Your task to perform on an android device: Open calendar and show me the third week of next month Image 0: 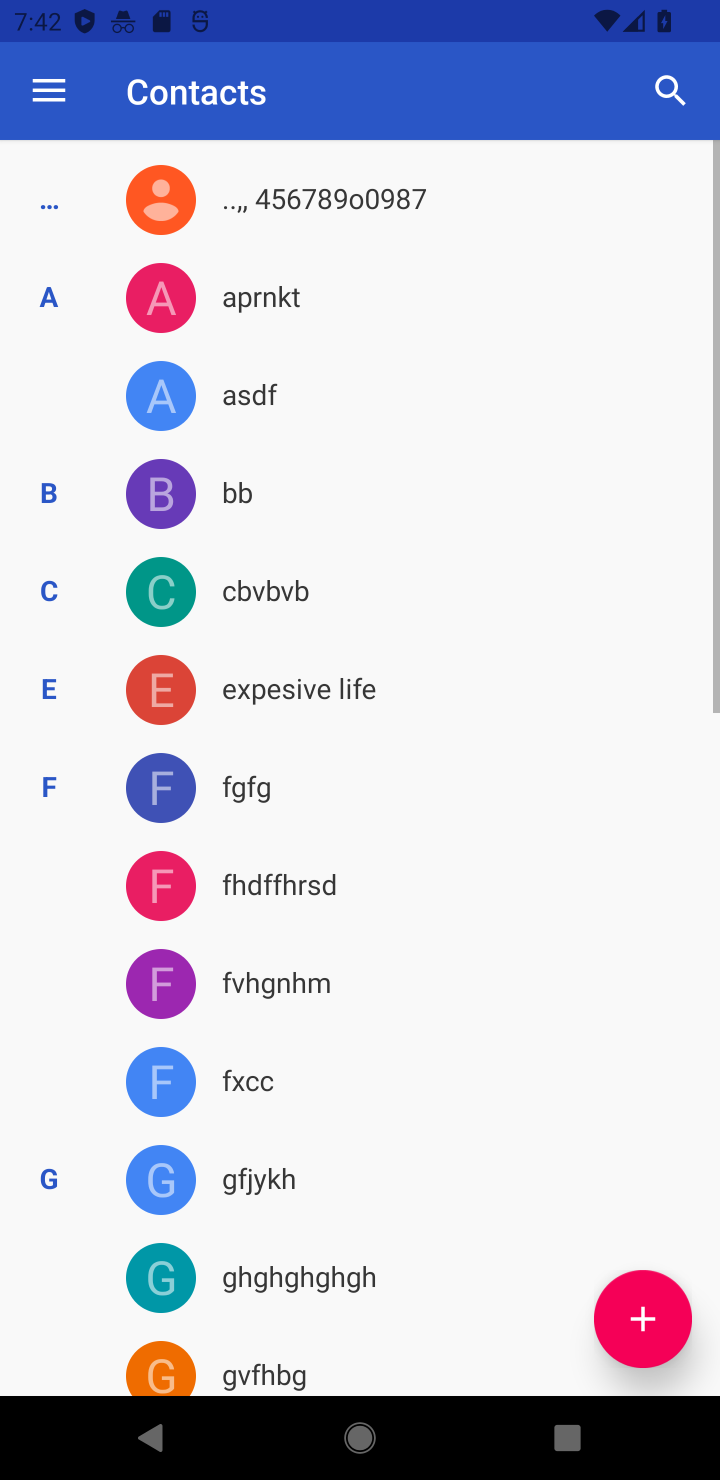
Step 0: press back button
Your task to perform on an android device: Open calendar and show me the third week of next month Image 1: 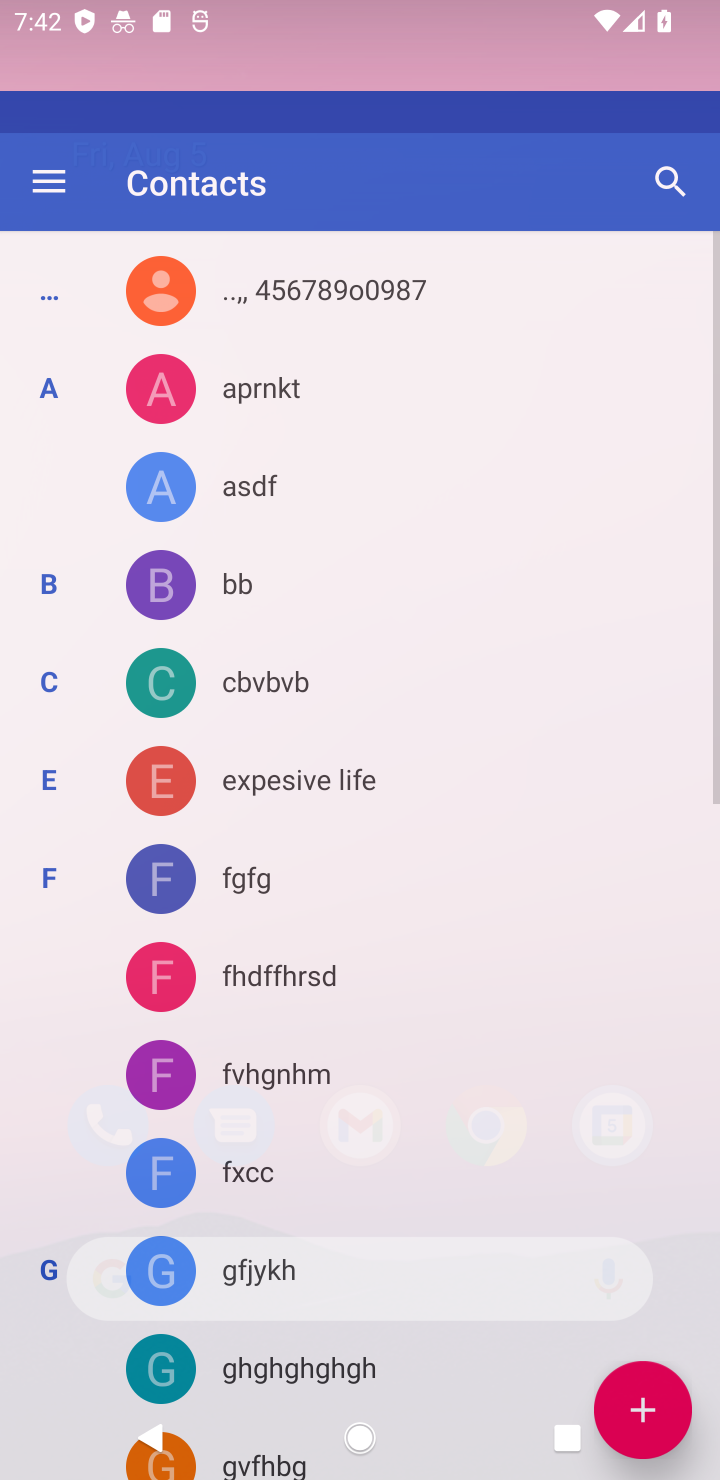
Step 1: press back button
Your task to perform on an android device: Open calendar and show me the third week of next month Image 2: 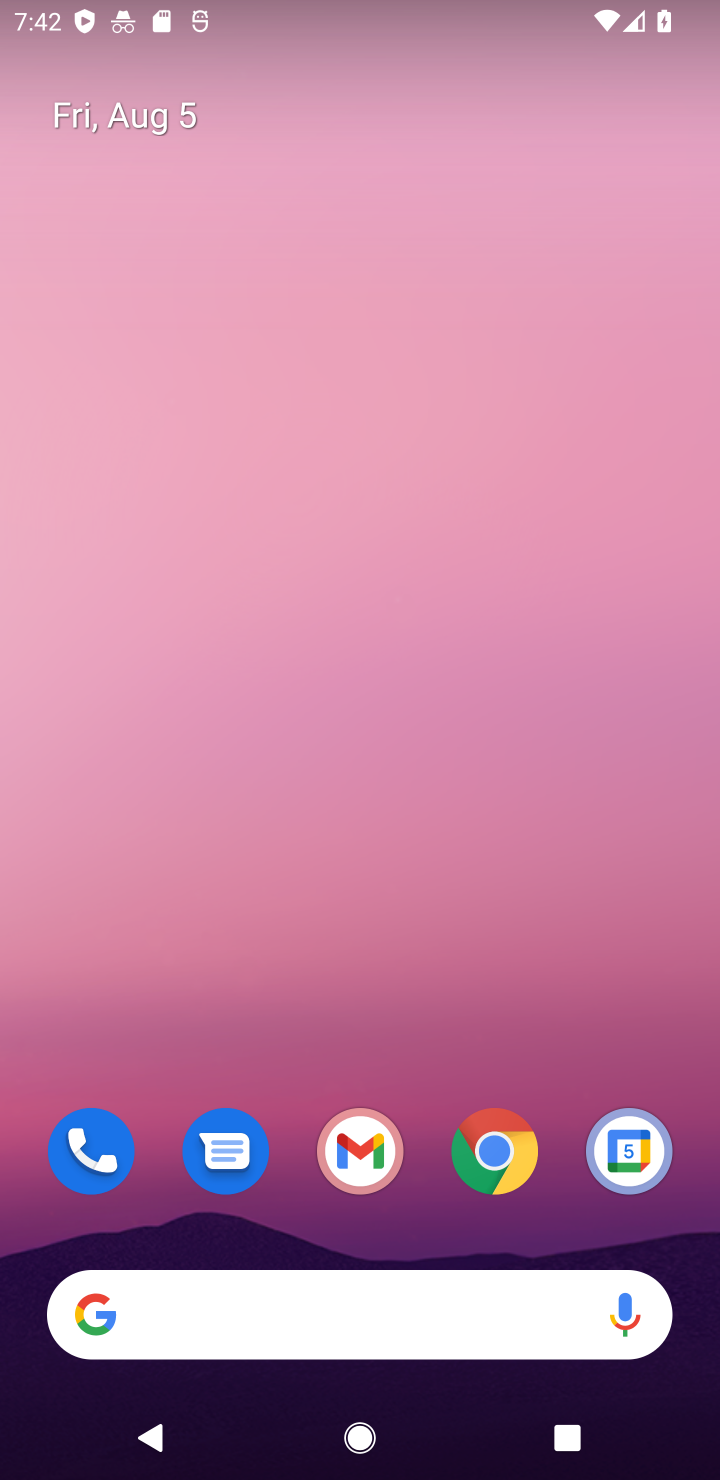
Step 2: drag from (386, 1211) to (325, 131)
Your task to perform on an android device: Open calendar and show me the third week of next month Image 3: 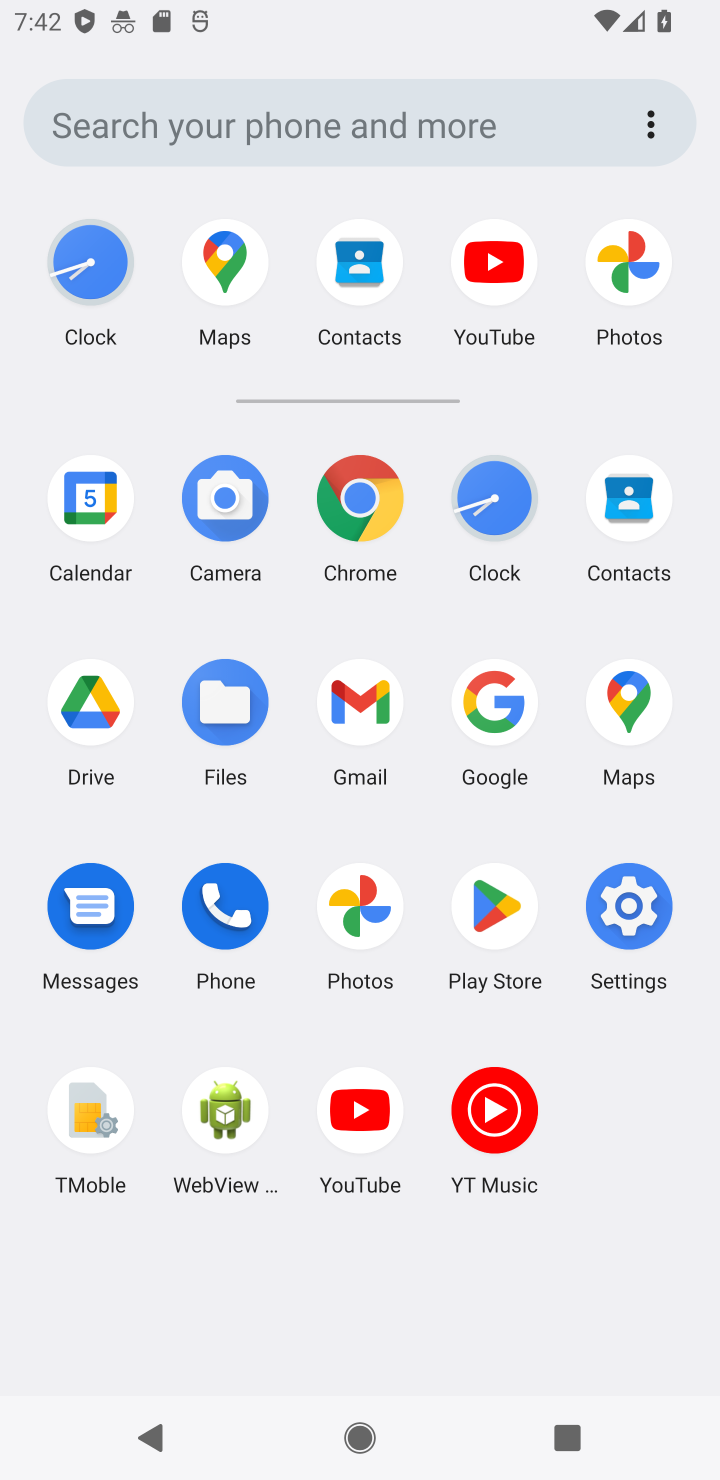
Step 3: click (82, 531)
Your task to perform on an android device: Open calendar and show me the third week of next month Image 4: 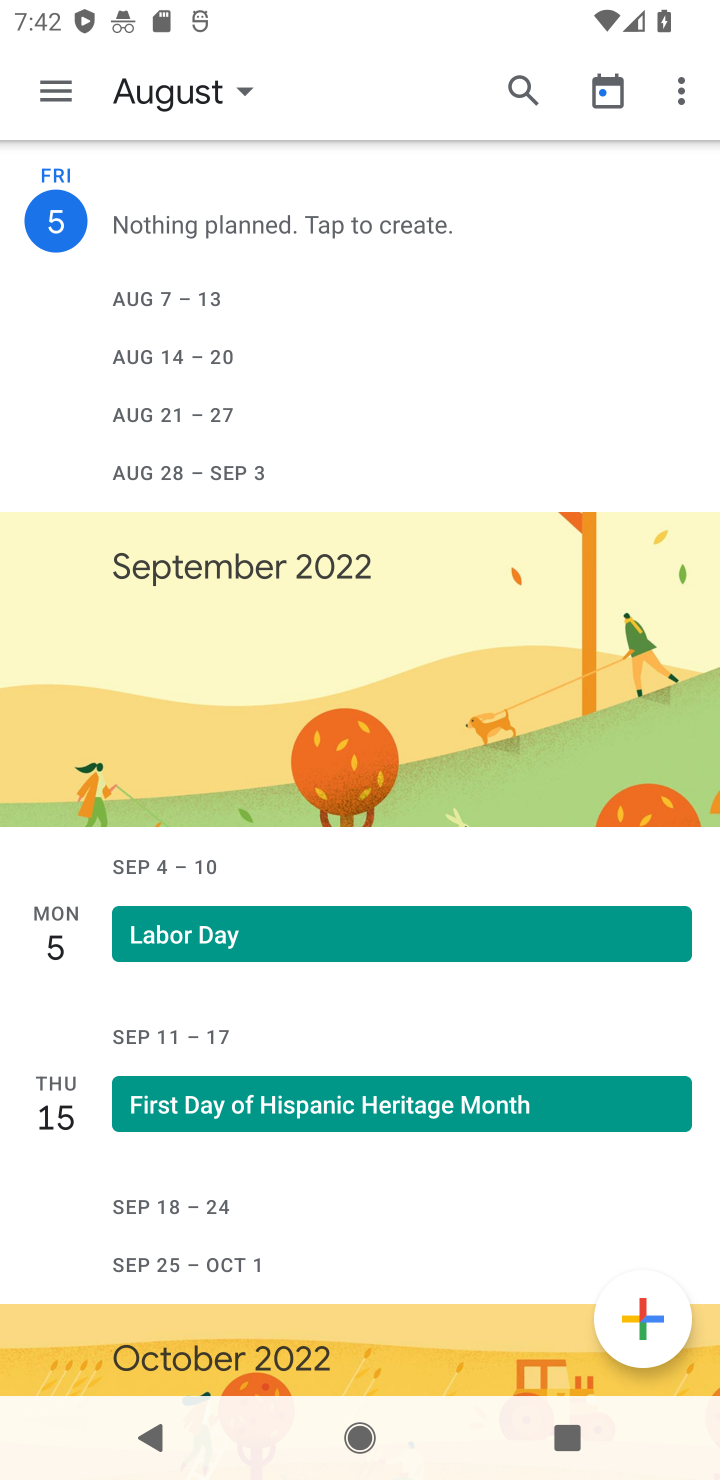
Step 4: click (69, 77)
Your task to perform on an android device: Open calendar and show me the third week of next month Image 5: 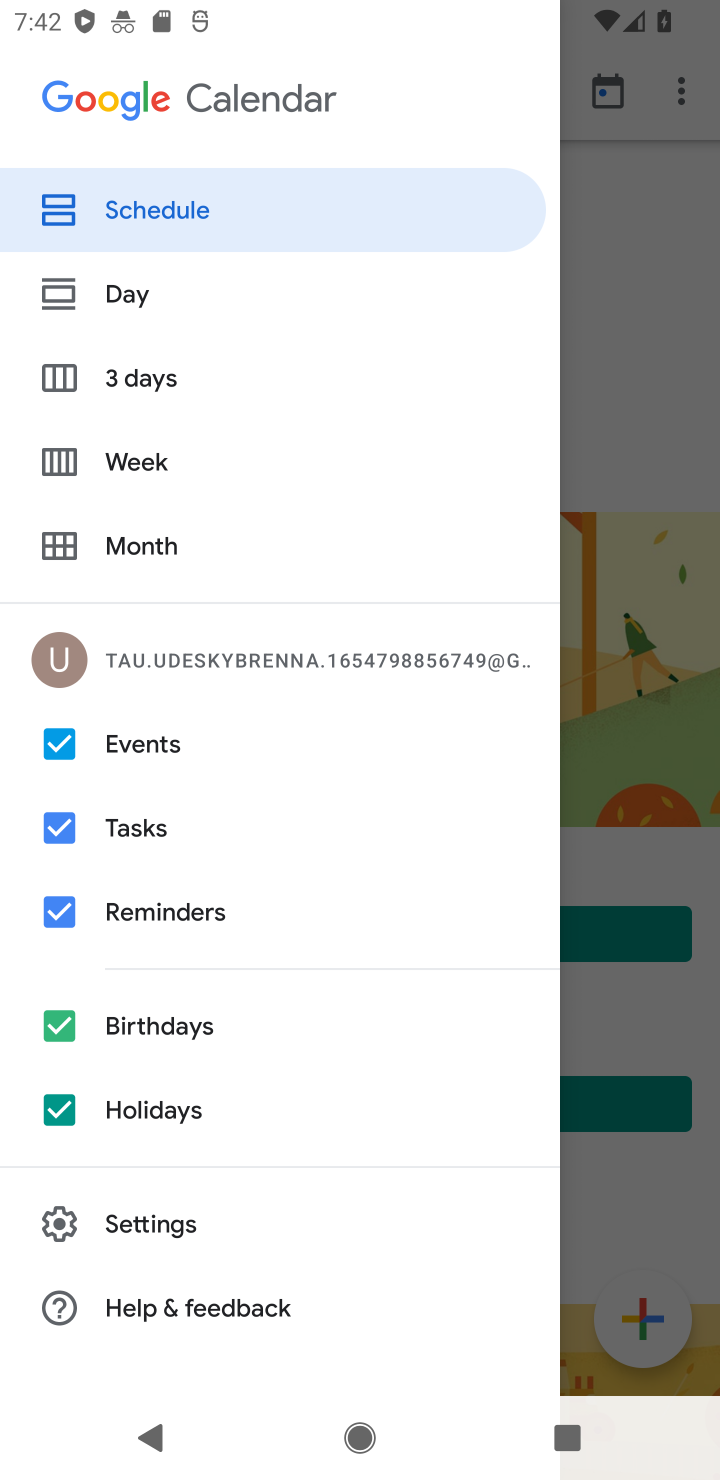
Step 5: click (158, 471)
Your task to perform on an android device: Open calendar and show me the third week of next month Image 6: 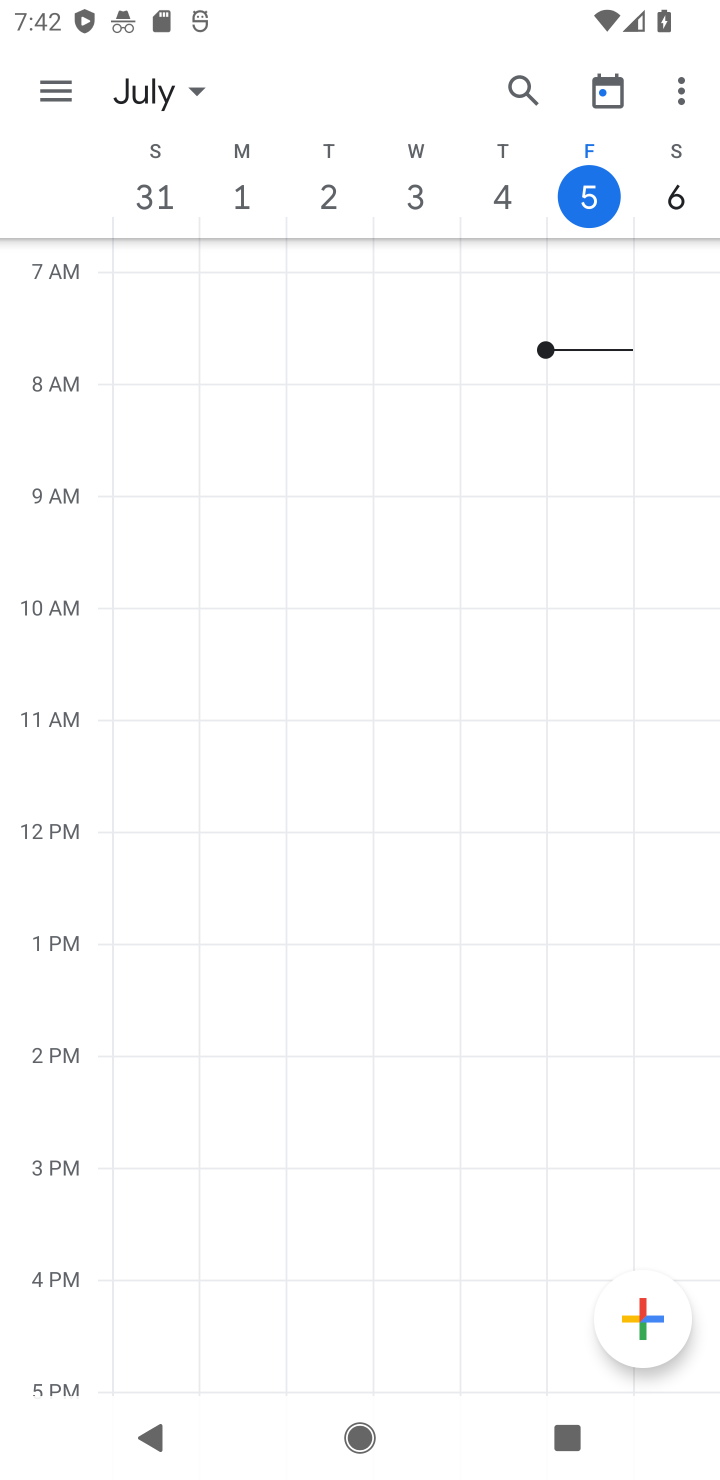
Step 6: task complete